Your task to perform on an android device: show emergency info Image 0: 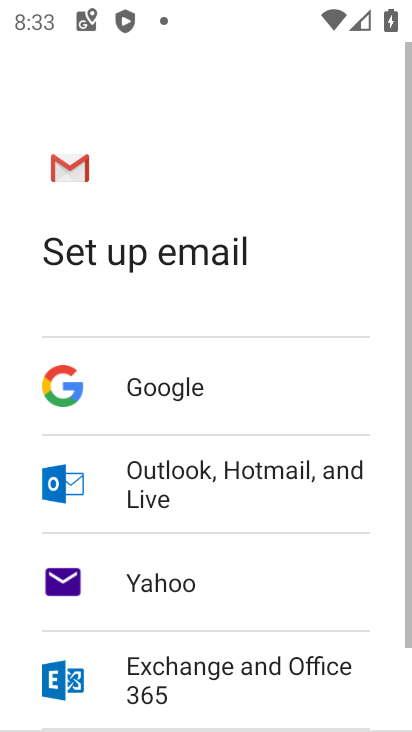
Step 0: press home button
Your task to perform on an android device: show emergency info Image 1: 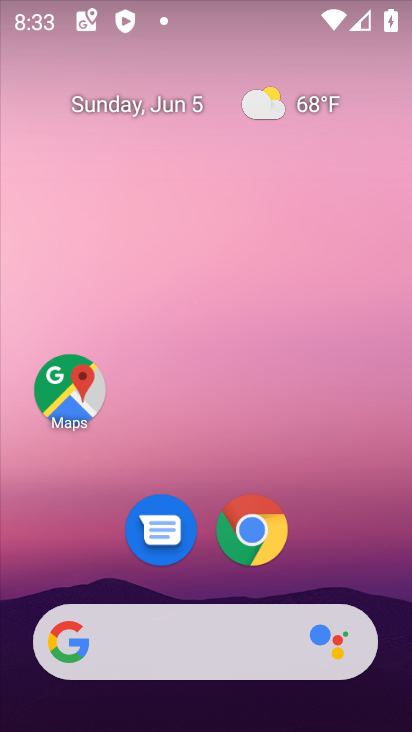
Step 1: drag from (400, 608) to (378, 36)
Your task to perform on an android device: show emergency info Image 2: 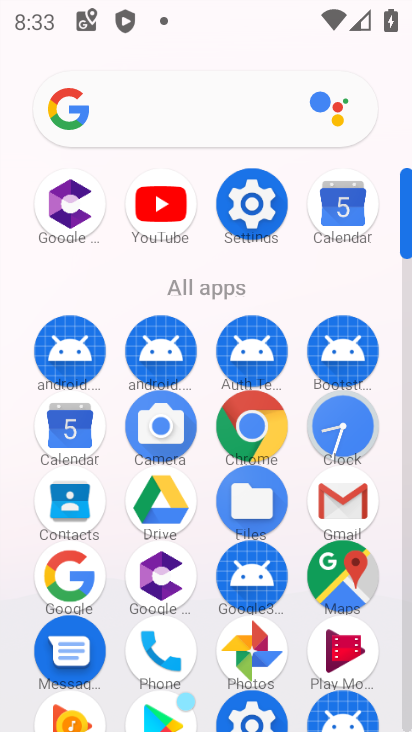
Step 2: click (408, 690)
Your task to perform on an android device: show emergency info Image 3: 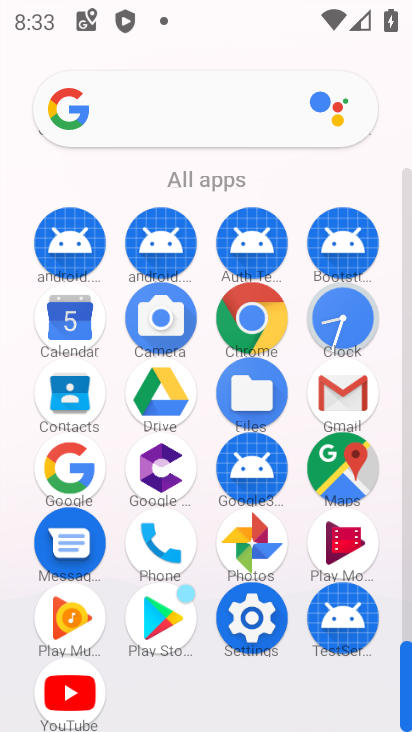
Step 3: click (255, 620)
Your task to perform on an android device: show emergency info Image 4: 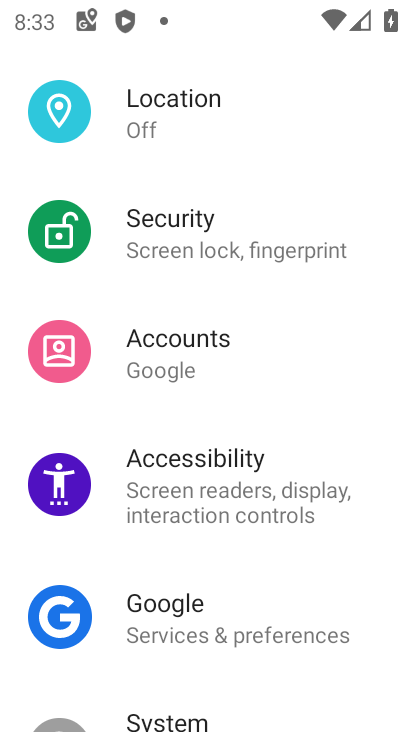
Step 4: drag from (255, 620) to (205, 132)
Your task to perform on an android device: show emergency info Image 5: 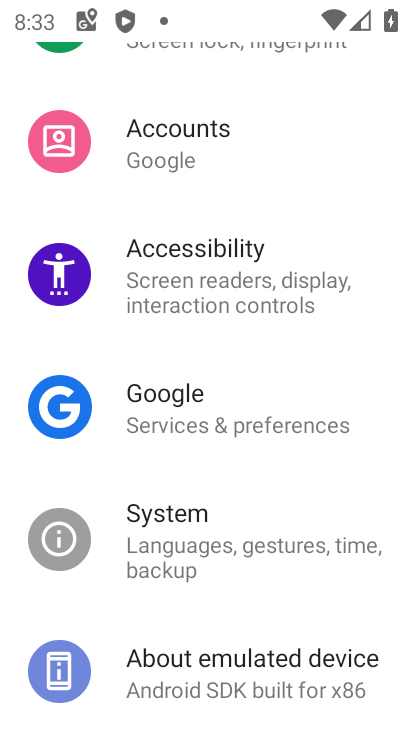
Step 5: click (197, 685)
Your task to perform on an android device: show emergency info Image 6: 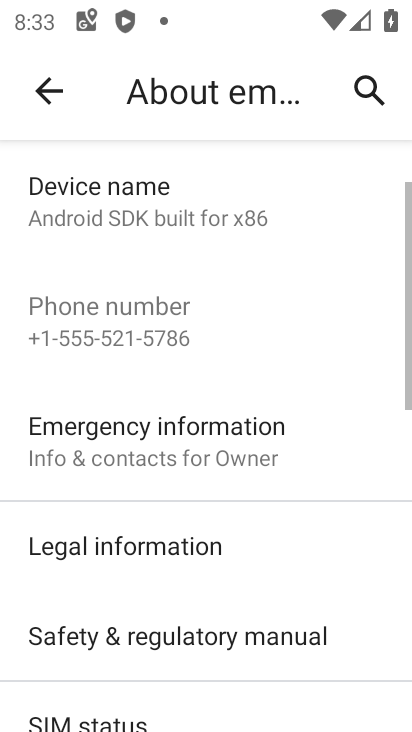
Step 6: click (149, 439)
Your task to perform on an android device: show emergency info Image 7: 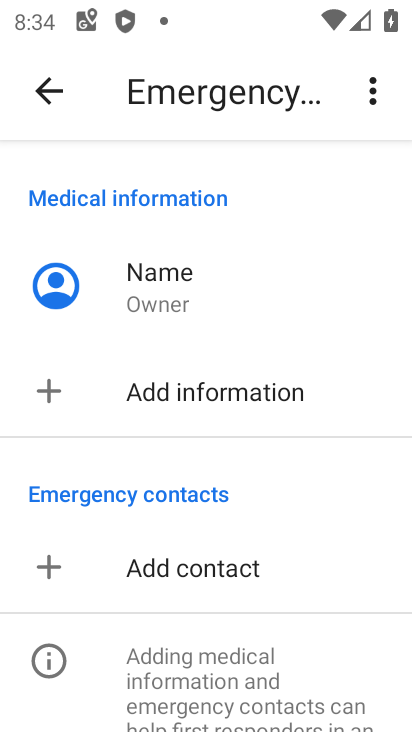
Step 7: task complete